Your task to perform on an android device: move a message to another label in the gmail app Image 0: 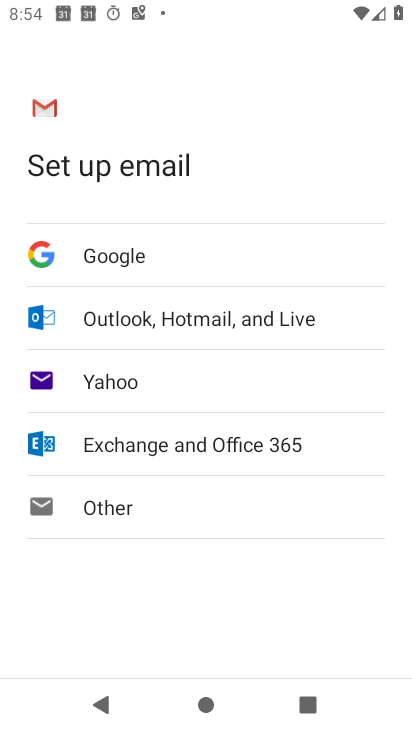
Step 0: press home button
Your task to perform on an android device: move a message to another label in the gmail app Image 1: 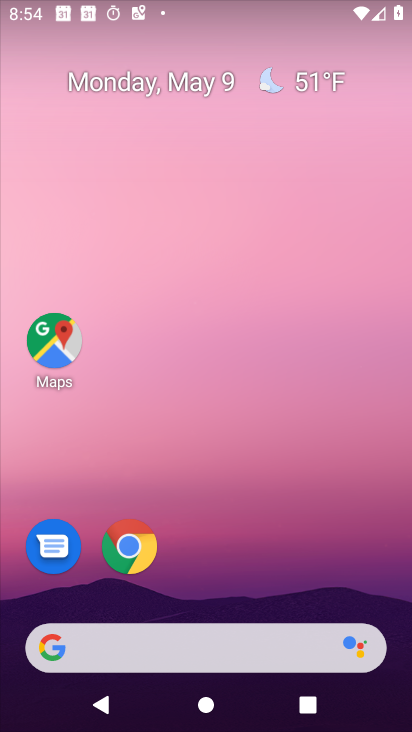
Step 1: drag from (338, 513) to (336, 136)
Your task to perform on an android device: move a message to another label in the gmail app Image 2: 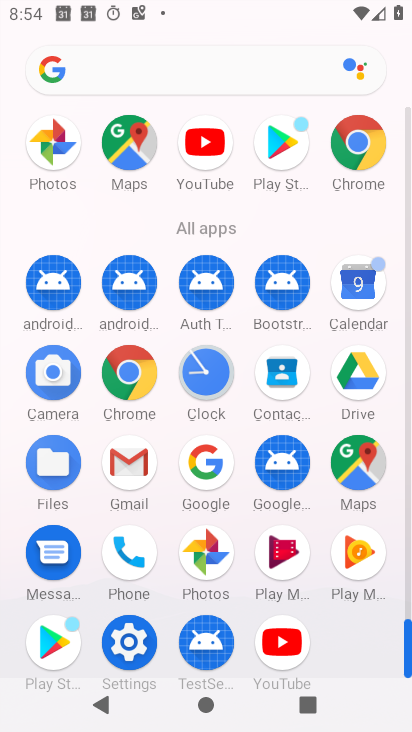
Step 2: click (119, 462)
Your task to perform on an android device: move a message to another label in the gmail app Image 3: 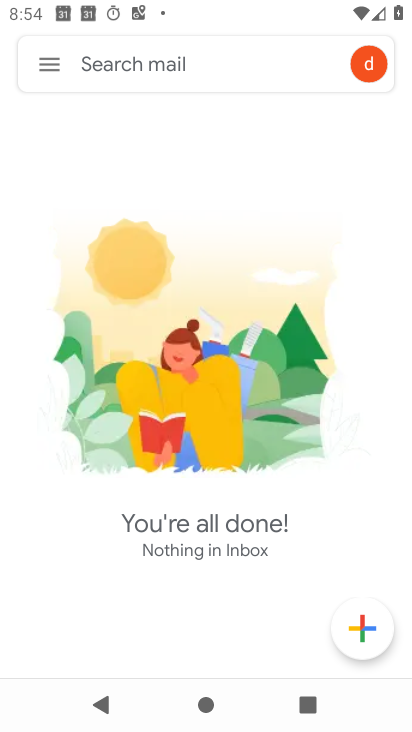
Step 3: click (32, 56)
Your task to perform on an android device: move a message to another label in the gmail app Image 4: 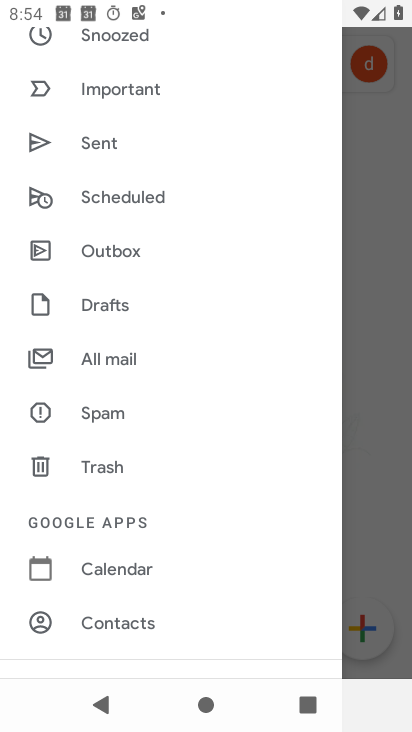
Step 4: drag from (216, 105) to (226, 510)
Your task to perform on an android device: move a message to another label in the gmail app Image 5: 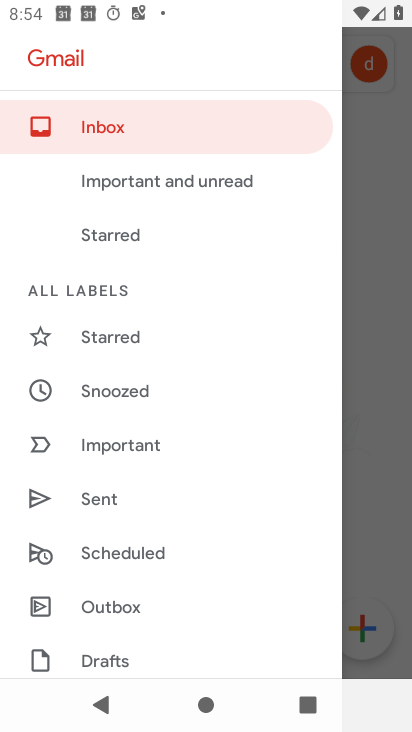
Step 5: click (113, 123)
Your task to perform on an android device: move a message to another label in the gmail app Image 6: 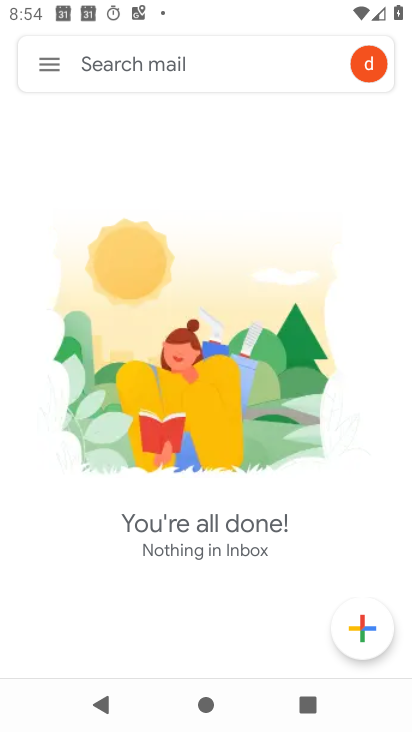
Step 6: task complete